Your task to perform on an android device: Go to settings Image 0: 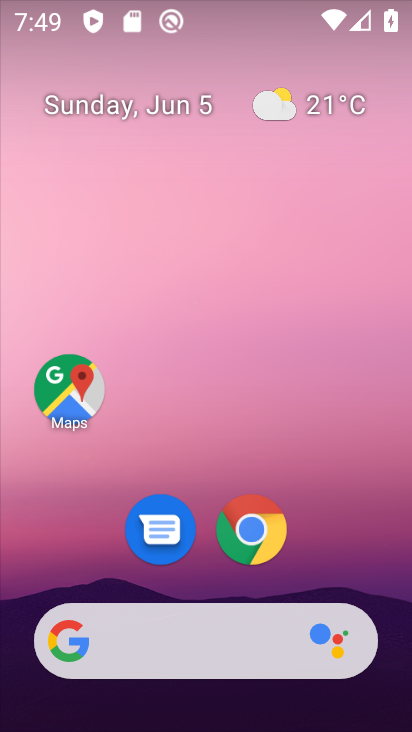
Step 0: drag from (241, 592) to (167, 4)
Your task to perform on an android device: Go to settings Image 1: 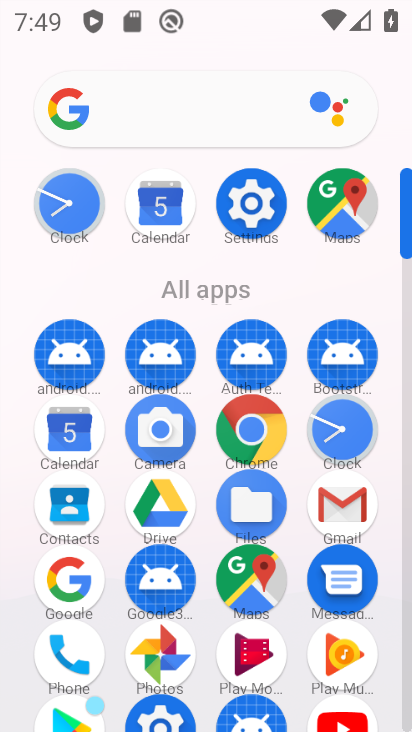
Step 1: click (267, 209)
Your task to perform on an android device: Go to settings Image 2: 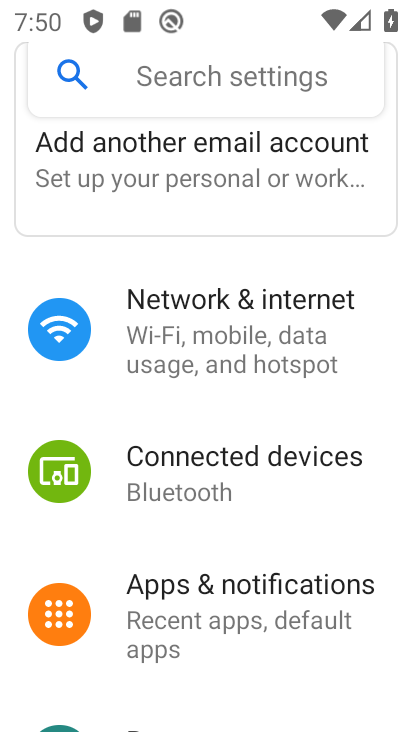
Step 2: task complete